Your task to perform on an android device: Open maps Image 0: 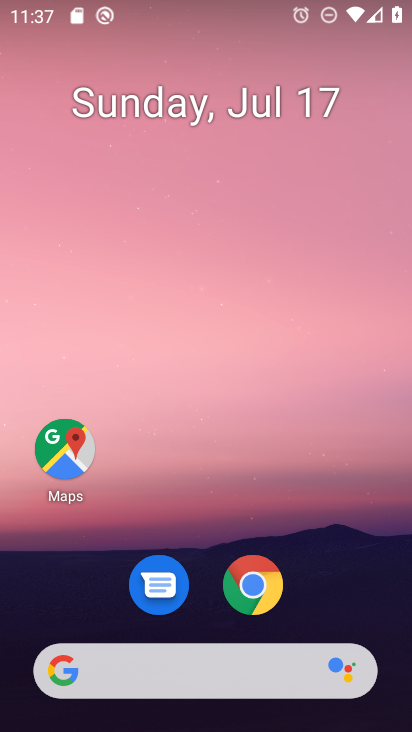
Step 0: click (69, 444)
Your task to perform on an android device: Open maps Image 1: 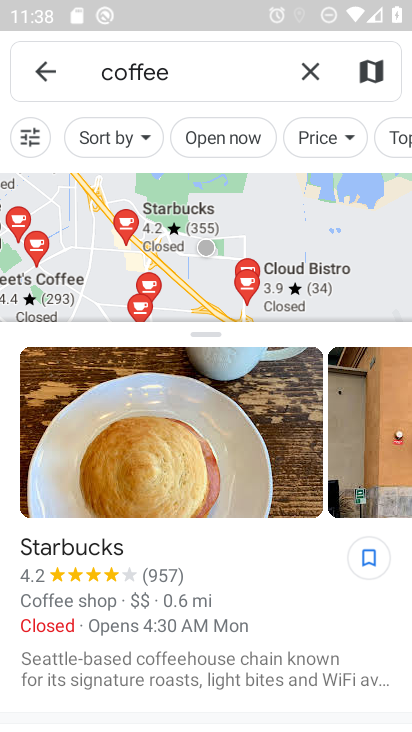
Step 1: click (314, 67)
Your task to perform on an android device: Open maps Image 2: 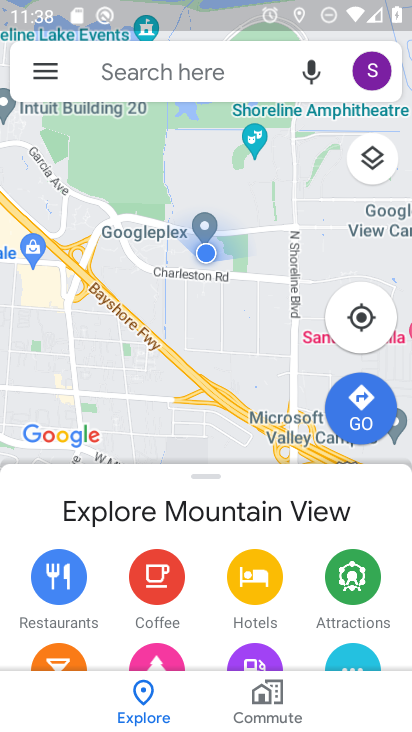
Step 2: task complete